Your task to perform on an android device: Toggle the flashlight Image 0: 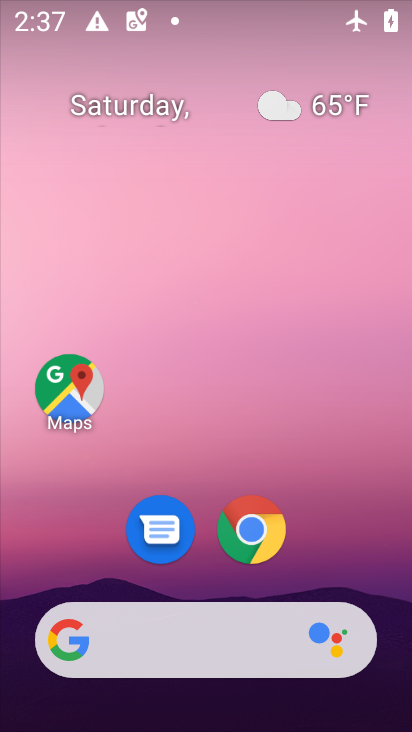
Step 0: drag from (394, 583) to (304, 78)
Your task to perform on an android device: Toggle the flashlight Image 1: 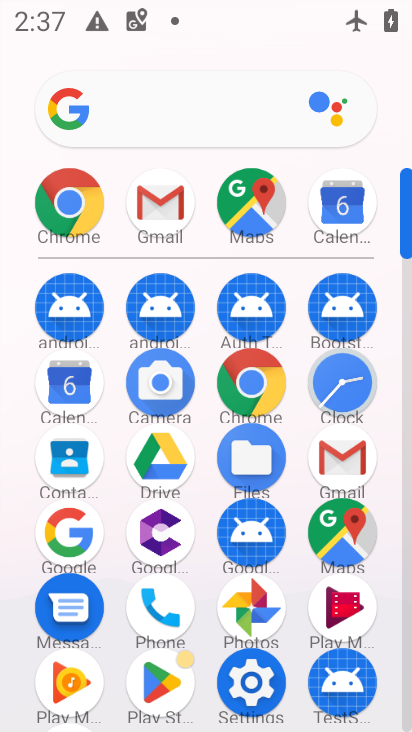
Step 1: drag from (233, 11) to (196, 482)
Your task to perform on an android device: Toggle the flashlight Image 2: 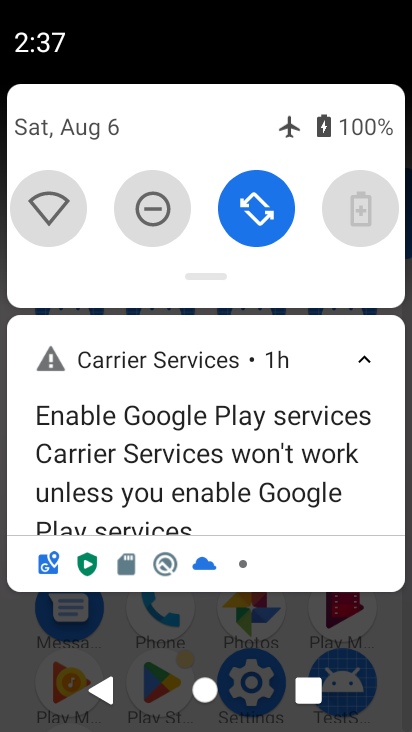
Step 2: drag from (207, 248) to (200, 586)
Your task to perform on an android device: Toggle the flashlight Image 3: 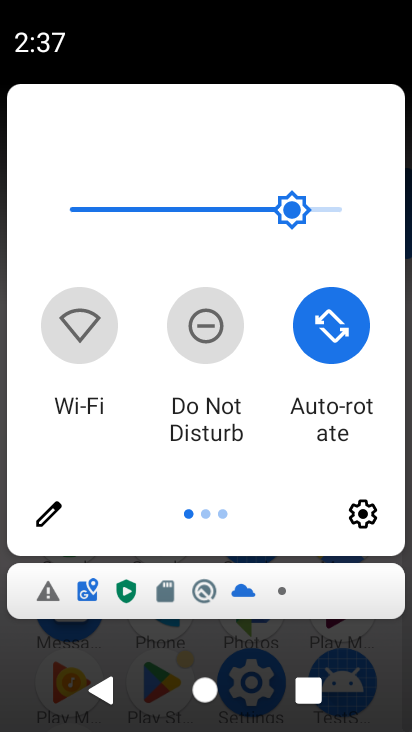
Step 3: drag from (317, 460) to (58, 472)
Your task to perform on an android device: Toggle the flashlight Image 4: 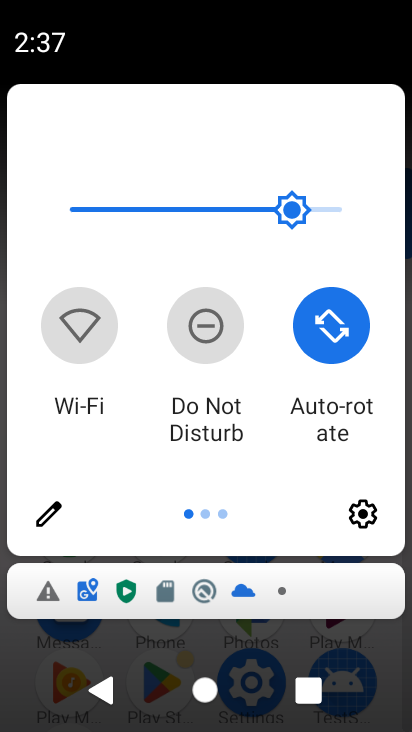
Step 4: click (52, 509)
Your task to perform on an android device: Toggle the flashlight Image 5: 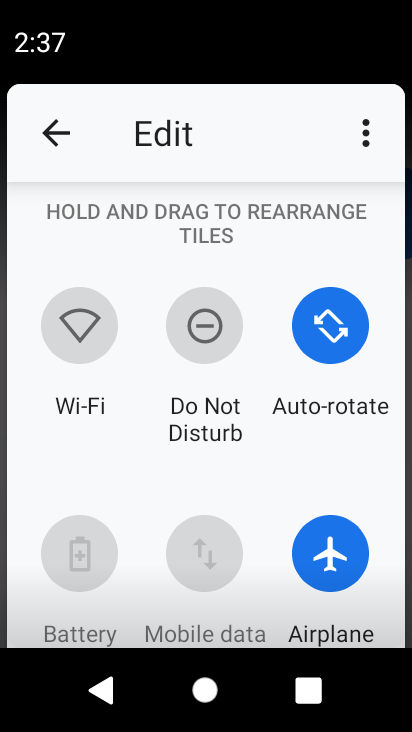
Step 5: task complete